Your task to perform on an android device: change keyboard looks Image 0: 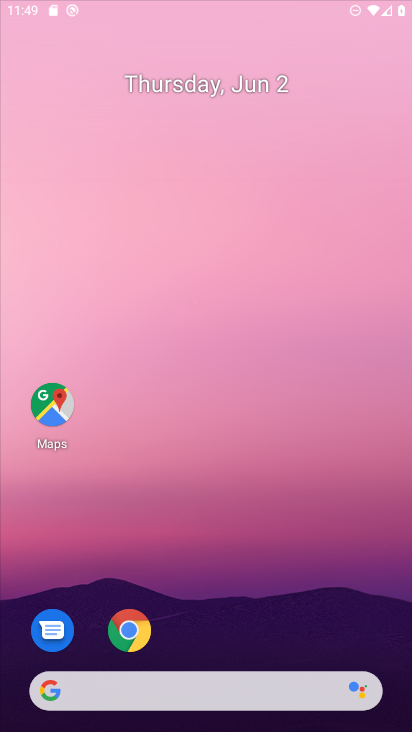
Step 0: drag from (202, 619) to (144, 225)
Your task to perform on an android device: change keyboard looks Image 1: 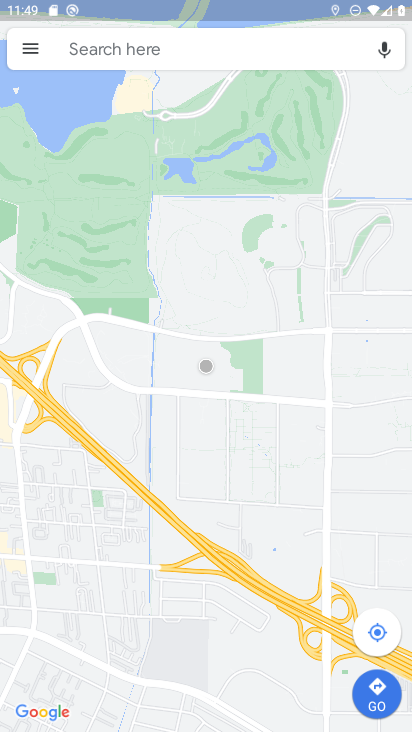
Step 1: press home button
Your task to perform on an android device: change keyboard looks Image 2: 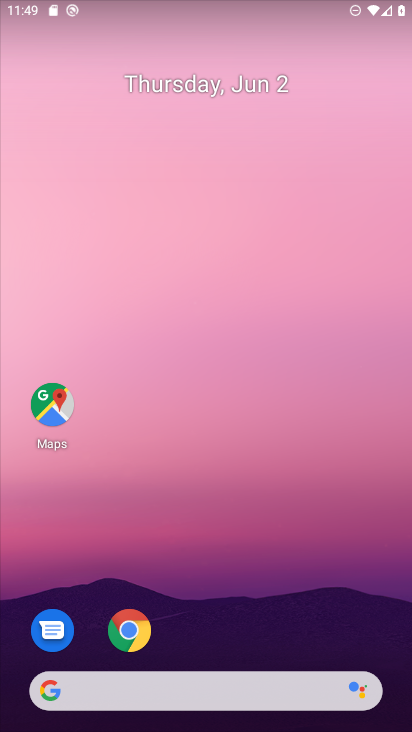
Step 2: drag from (243, 637) to (184, 282)
Your task to perform on an android device: change keyboard looks Image 3: 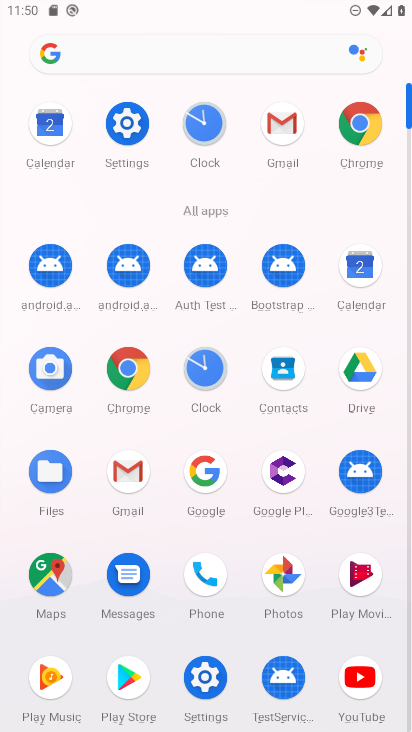
Step 3: click (218, 659)
Your task to perform on an android device: change keyboard looks Image 4: 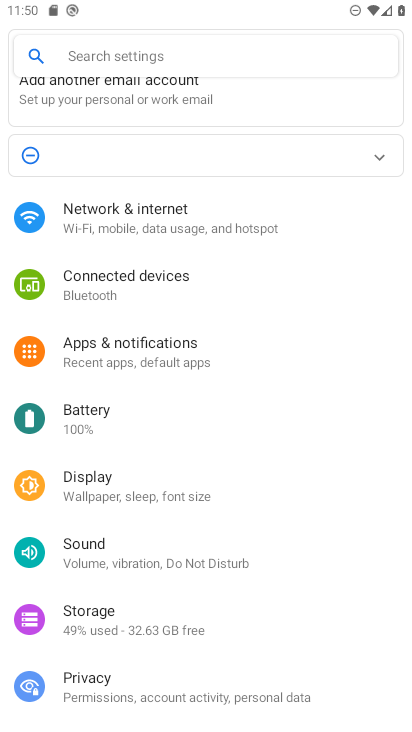
Step 4: drag from (249, 687) to (174, 15)
Your task to perform on an android device: change keyboard looks Image 5: 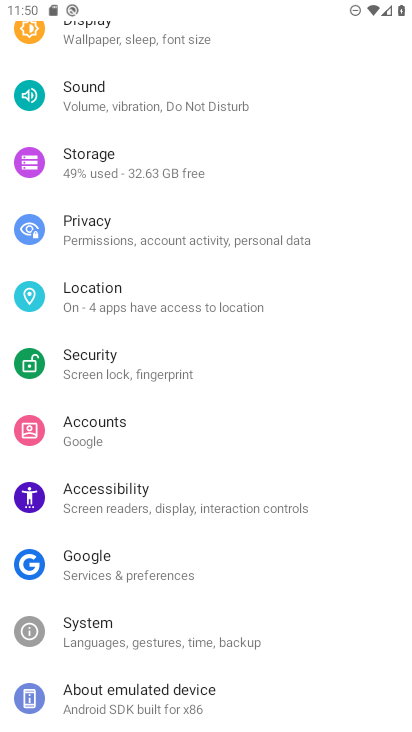
Step 5: click (199, 639)
Your task to perform on an android device: change keyboard looks Image 6: 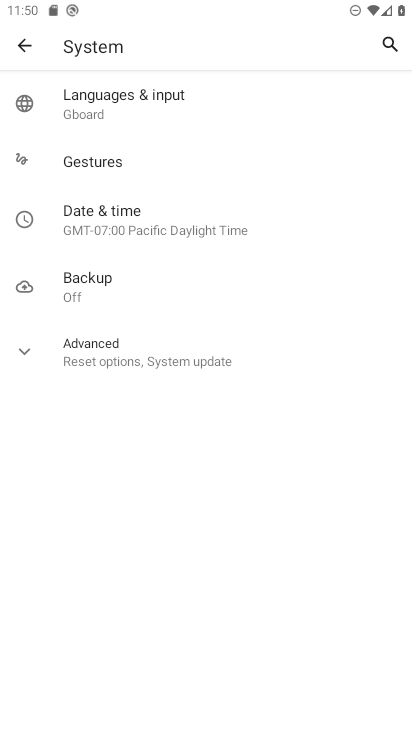
Step 6: click (172, 106)
Your task to perform on an android device: change keyboard looks Image 7: 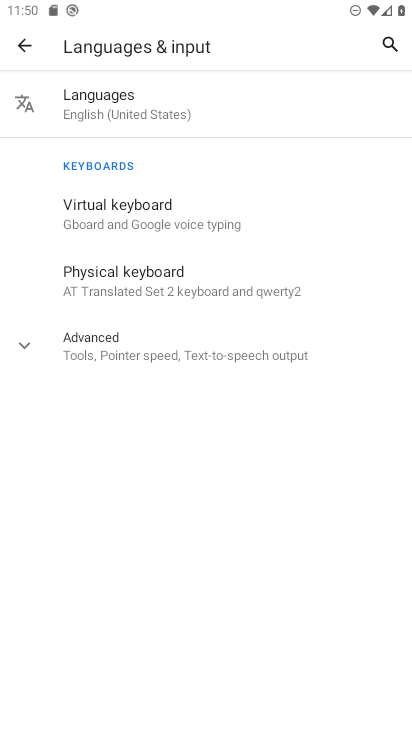
Step 7: click (178, 207)
Your task to perform on an android device: change keyboard looks Image 8: 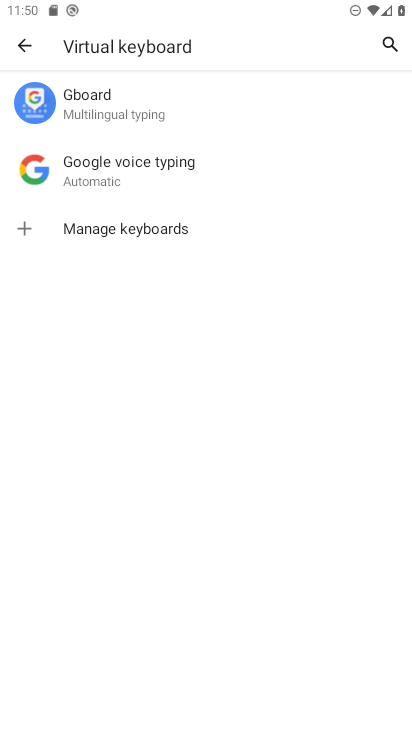
Step 8: click (154, 101)
Your task to perform on an android device: change keyboard looks Image 9: 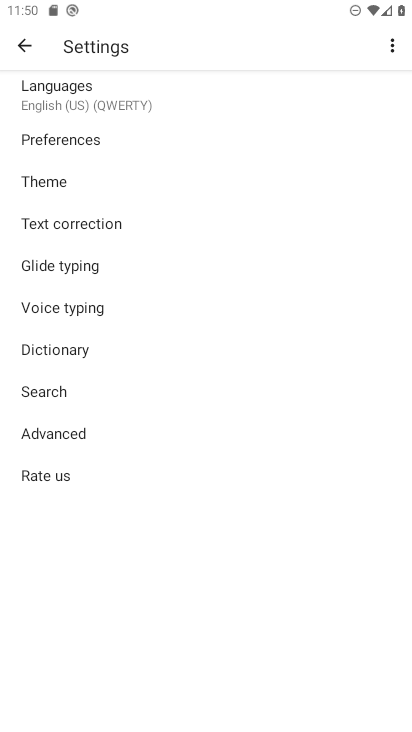
Step 9: click (104, 187)
Your task to perform on an android device: change keyboard looks Image 10: 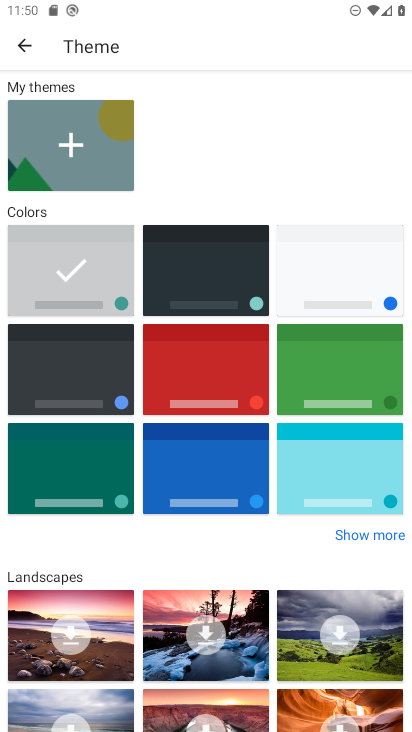
Step 10: click (200, 254)
Your task to perform on an android device: change keyboard looks Image 11: 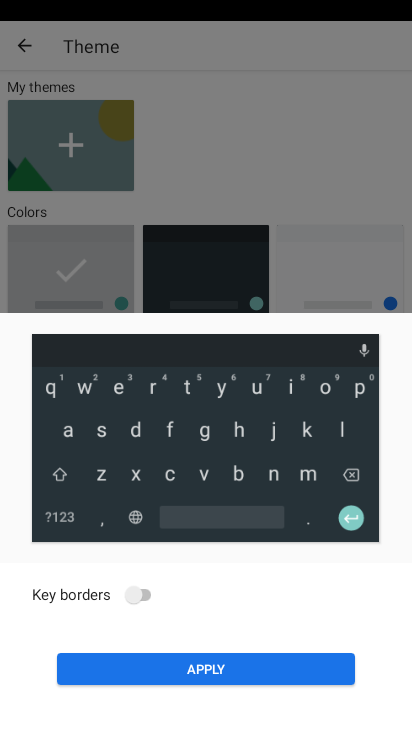
Step 11: click (194, 664)
Your task to perform on an android device: change keyboard looks Image 12: 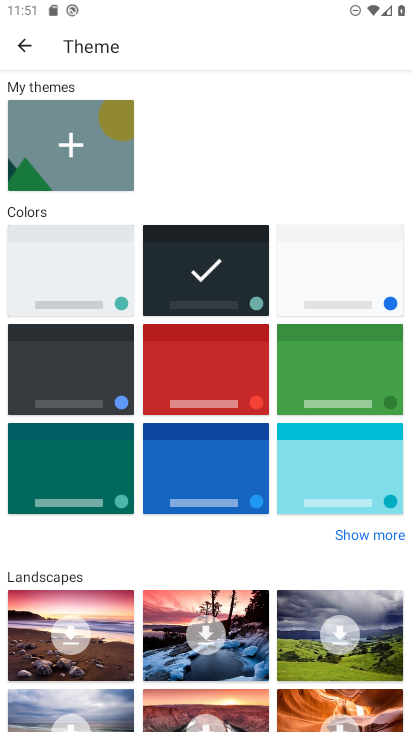
Step 12: task complete